Your task to perform on an android device: check battery use Image 0: 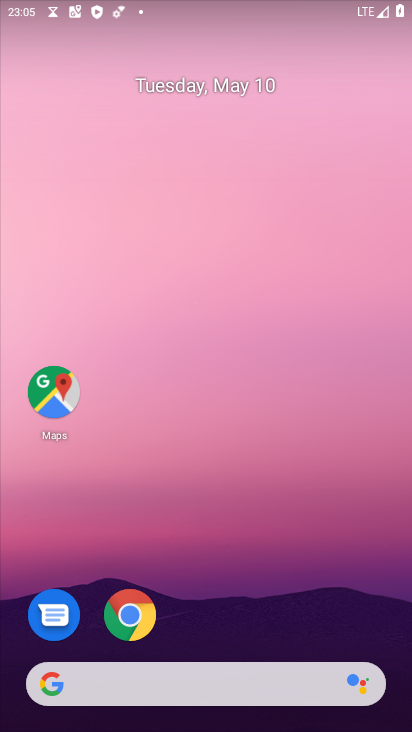
Step 0: drag from (262, 604) to (236, 107)
Your task to perform on an android device: check battery use Image 1: 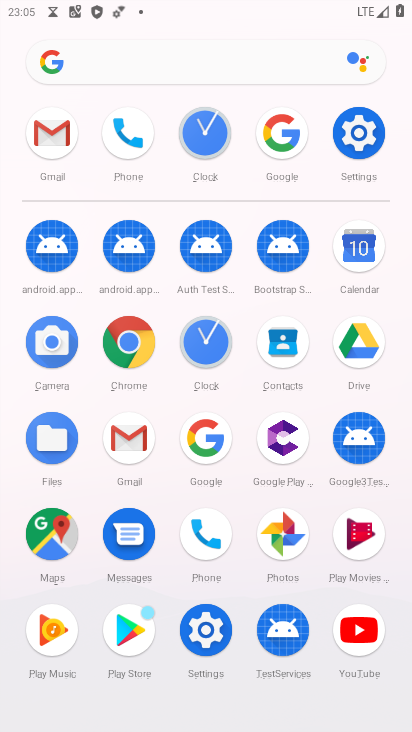
Step 1: click (360, 133)
Your task to perform on an android device: check battery use Image 2: 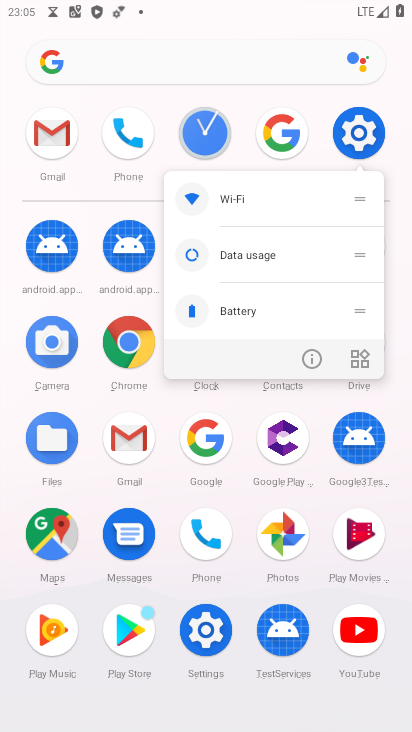
Step 2: click (361, 132)
Your task to perform on an android device: check battery use Image 3: 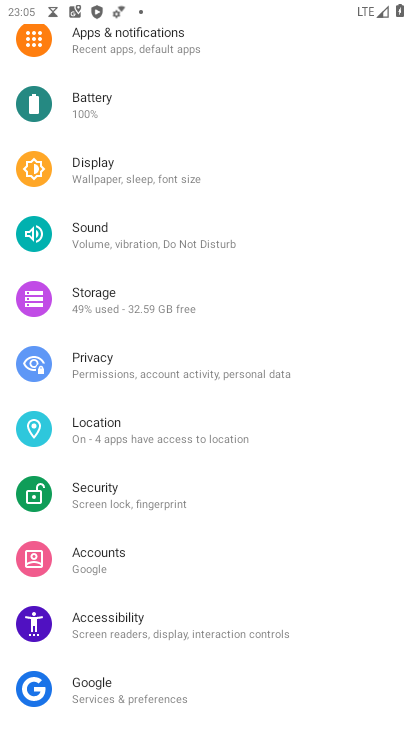
Step 3: click (87, 111)
Your task to perform on an android device: check battery use Image 4: 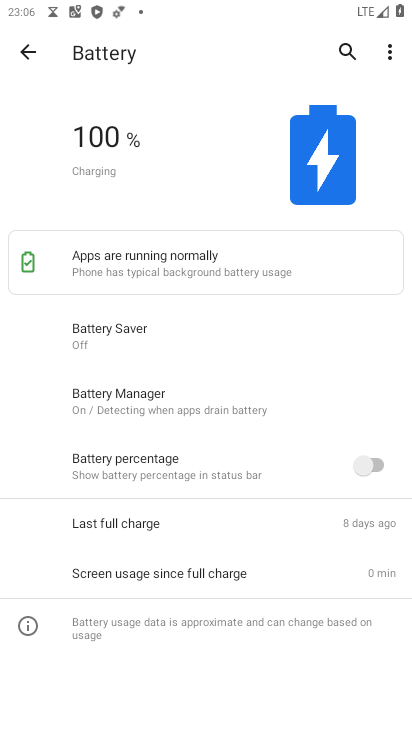
Step 4: click (386, 55)
Your task to perform on an android device: check battery use Image 5: 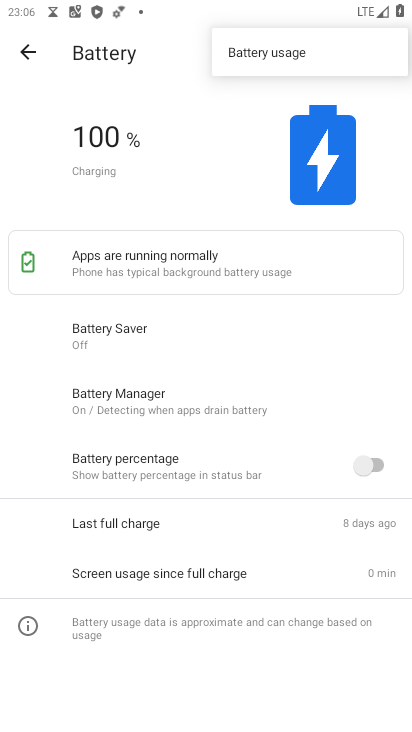
Step 5: click (305, 60)
Your task to perform on an android device: check battery use Image 6: 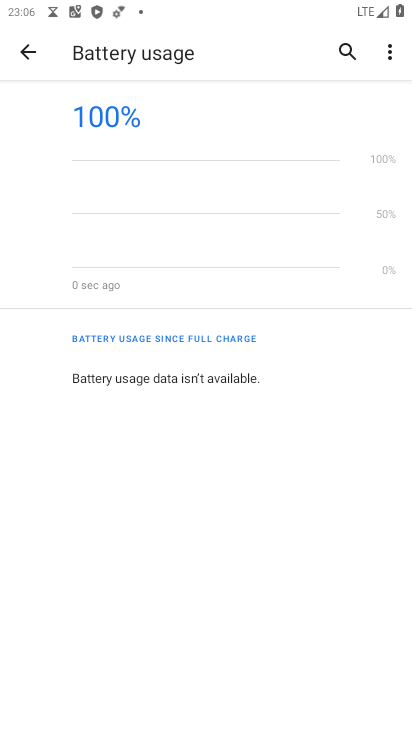
Step 6: task complete